Your task to perform on an android device: Search for Italian restaurants on Maps Image 0: 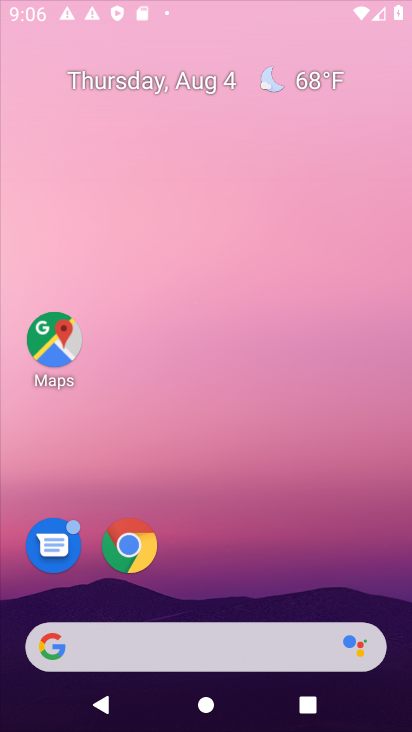
Step 0: press home button
Your task to perform on an android device: Search for Italian restaurants on Maps Image 1: 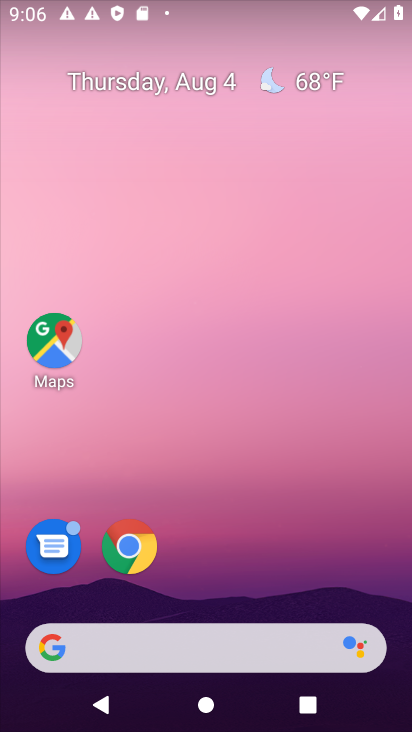
Step 1: click (48, 340)
Your task to perform on an android device: Search for Italian restaurants on Maps Image 2: 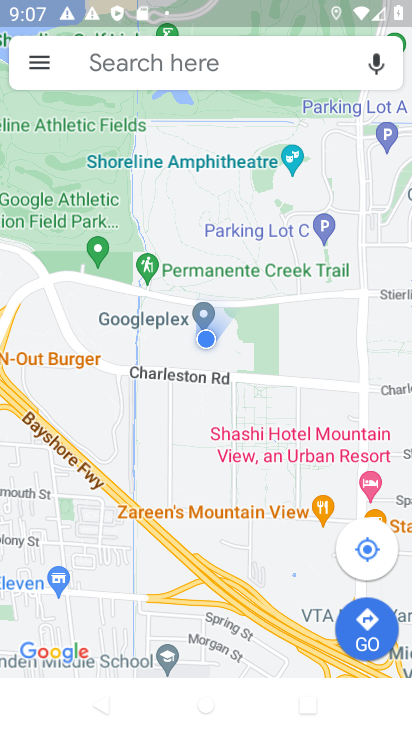
Step 2: click (209, 65)
Your task to perform on an android device: Search for Italian restaurants on Maps Image 3: 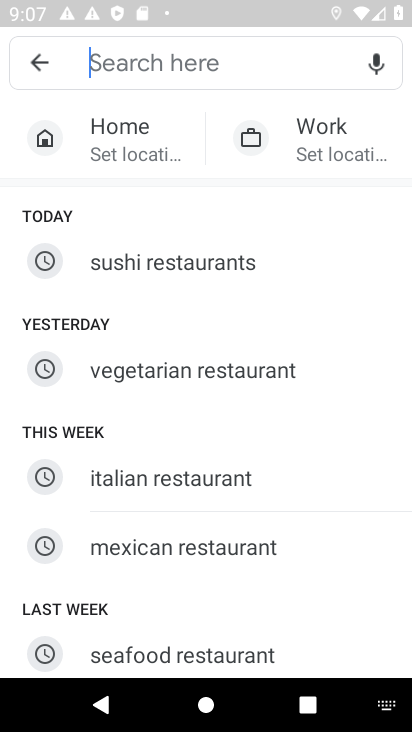
Step 3: click (165, 484)
Your task to perform on an android device: Search for Italian restaurants on Maps Image 4: 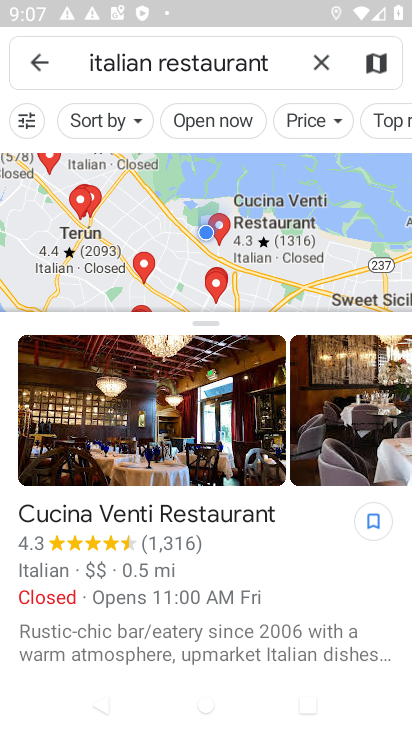
Step 4: task complete